Your task to perform on an android device: snooze an email in the gmail app Image 0: 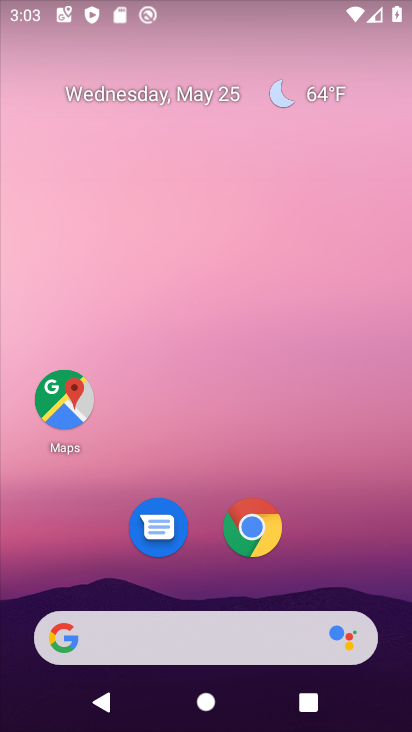
Step 0: drag from (212, 553) to (291, 33)
Your task to perform on an android device: snooze an email in the gmail app Image 1: 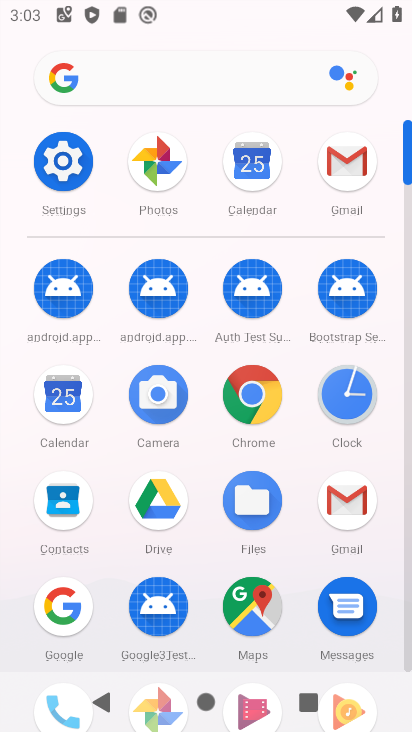
Step 1: click (349, 168)
Your task to perform on an android device: snooze an email in the gmail app Image 2: 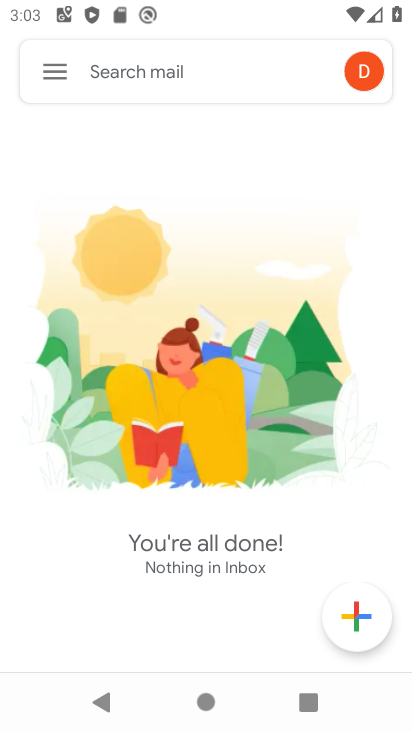
Step 2: click (54, 68)
Your task to perform on an android device: snooze an email in the gmail app Image 3: 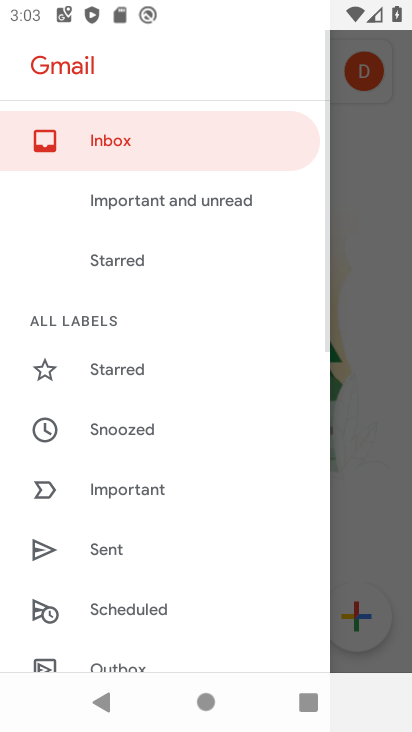
Step 3: drag from (174, 630) to (209, 206)
Your task to perform on an android device: snooze an email in the gmail app Image 4: 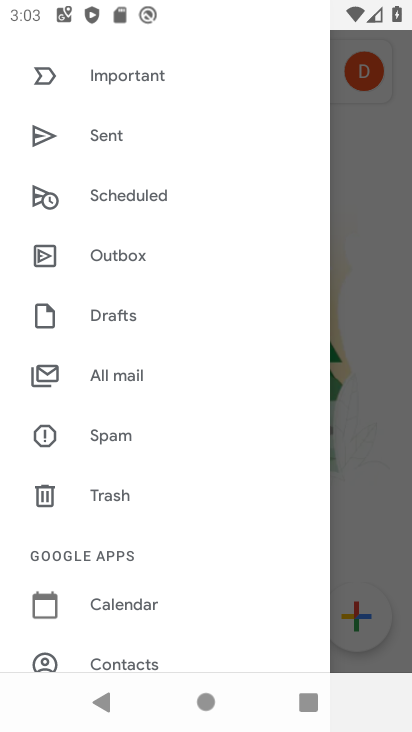
Step 4: click (132, 373)
Your task to perform on an android device: snooze an email in the gmail app Image 5: 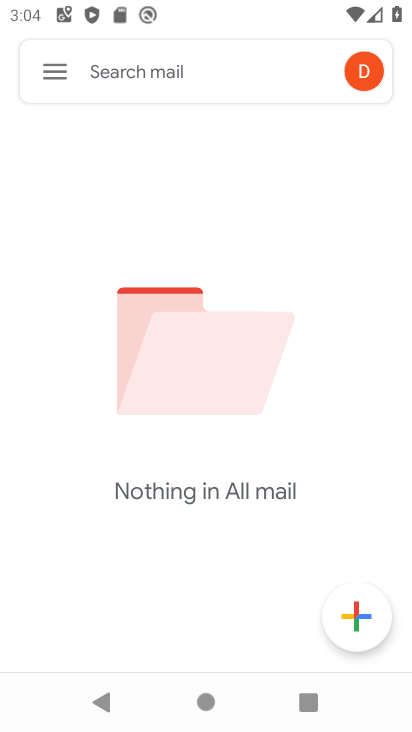
Step 5: task complete